Your task to perform on an android device: install app "Gmail" Image 0: 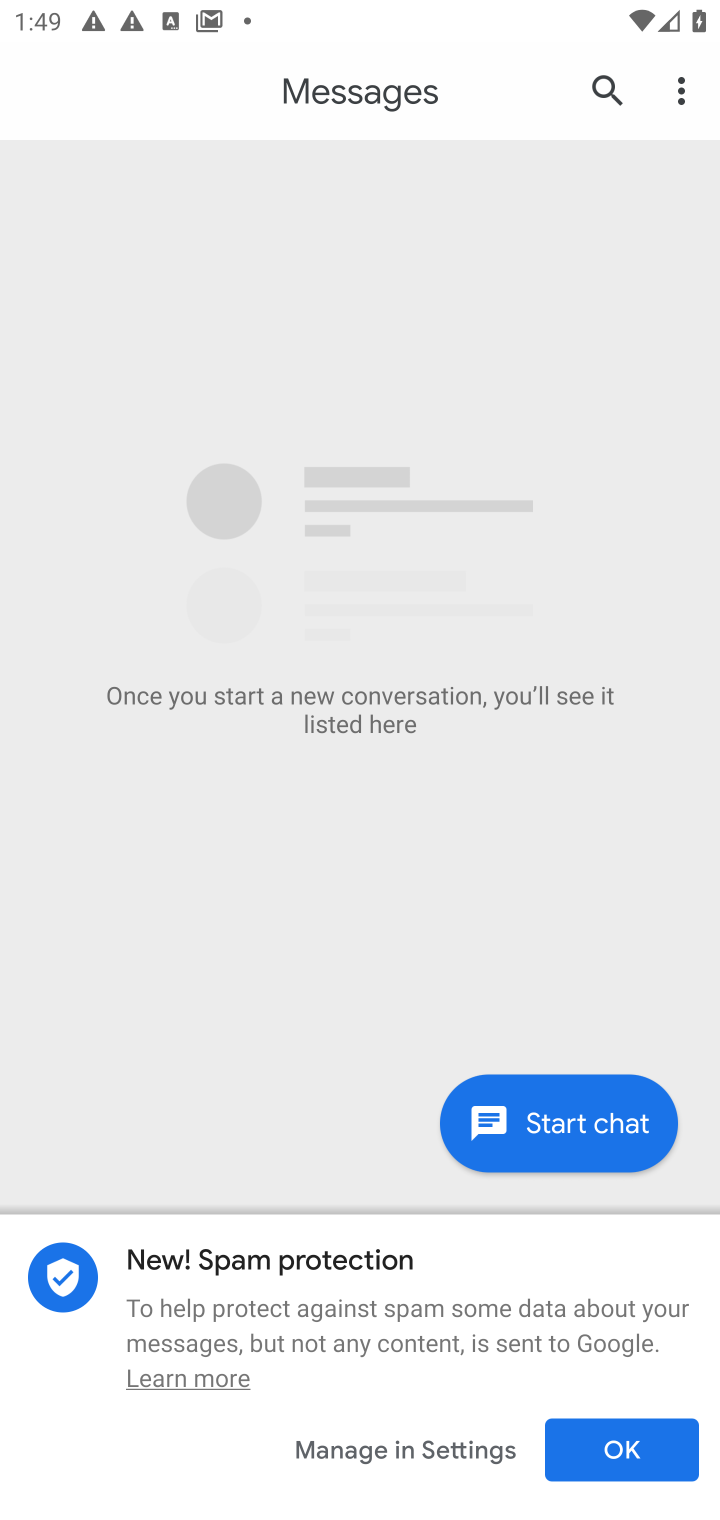
Step 0: press home button
Your task to perform on an android device: install app "Gmail" Image 1: 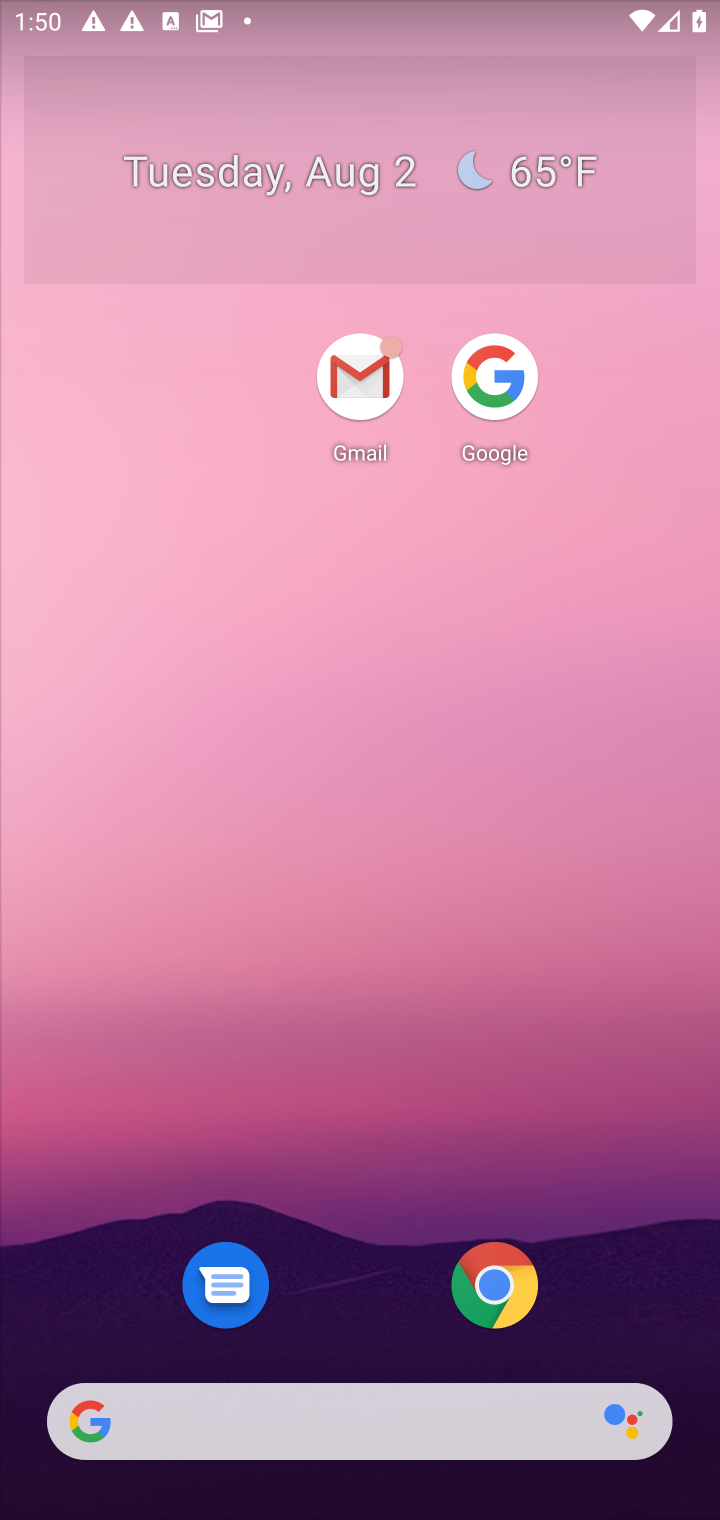
Step 1: drag from (369, 838) to (457, 177)
Your task to perform on an android device: install app "Gmail" Image 2: 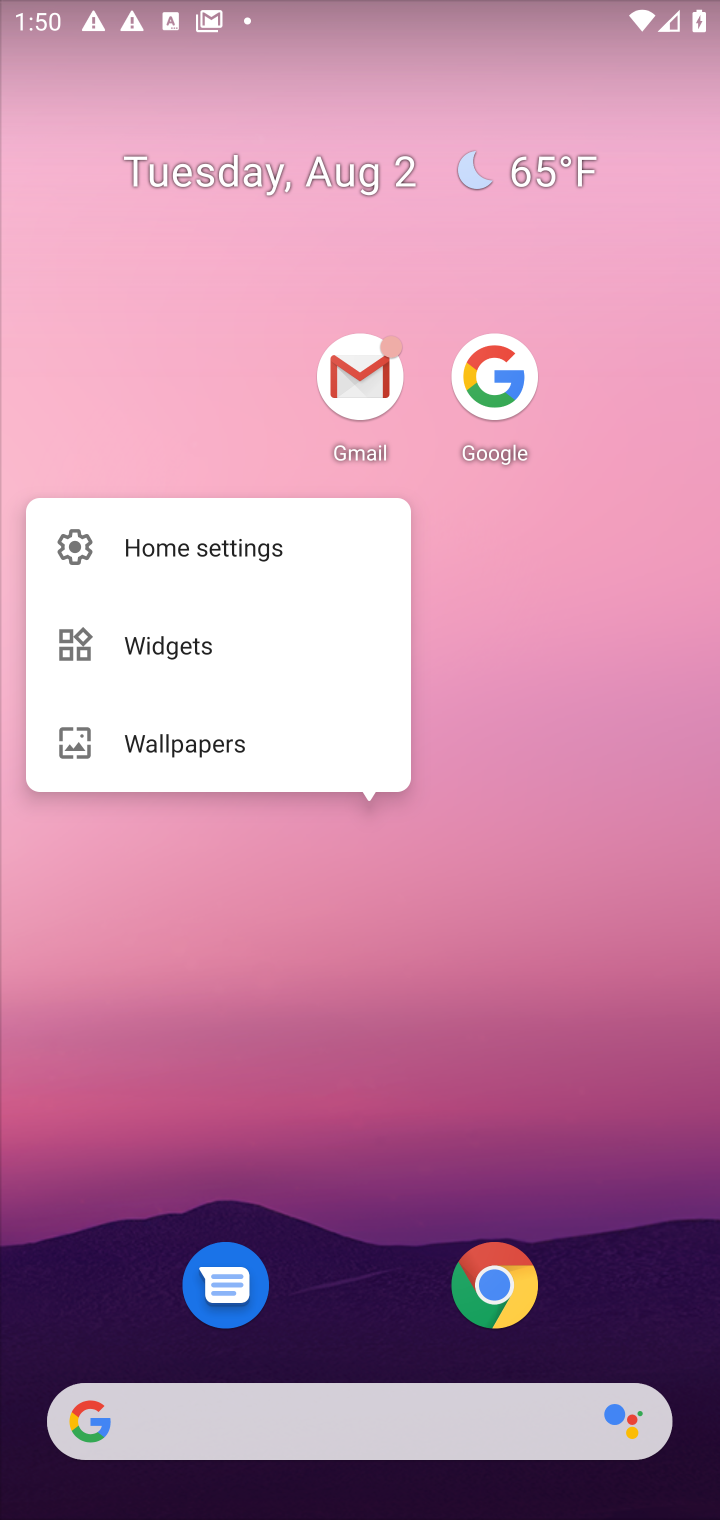
Step 2: click (638, 777)
Your task to perform on an android device: install app "Gmail" Image 3: 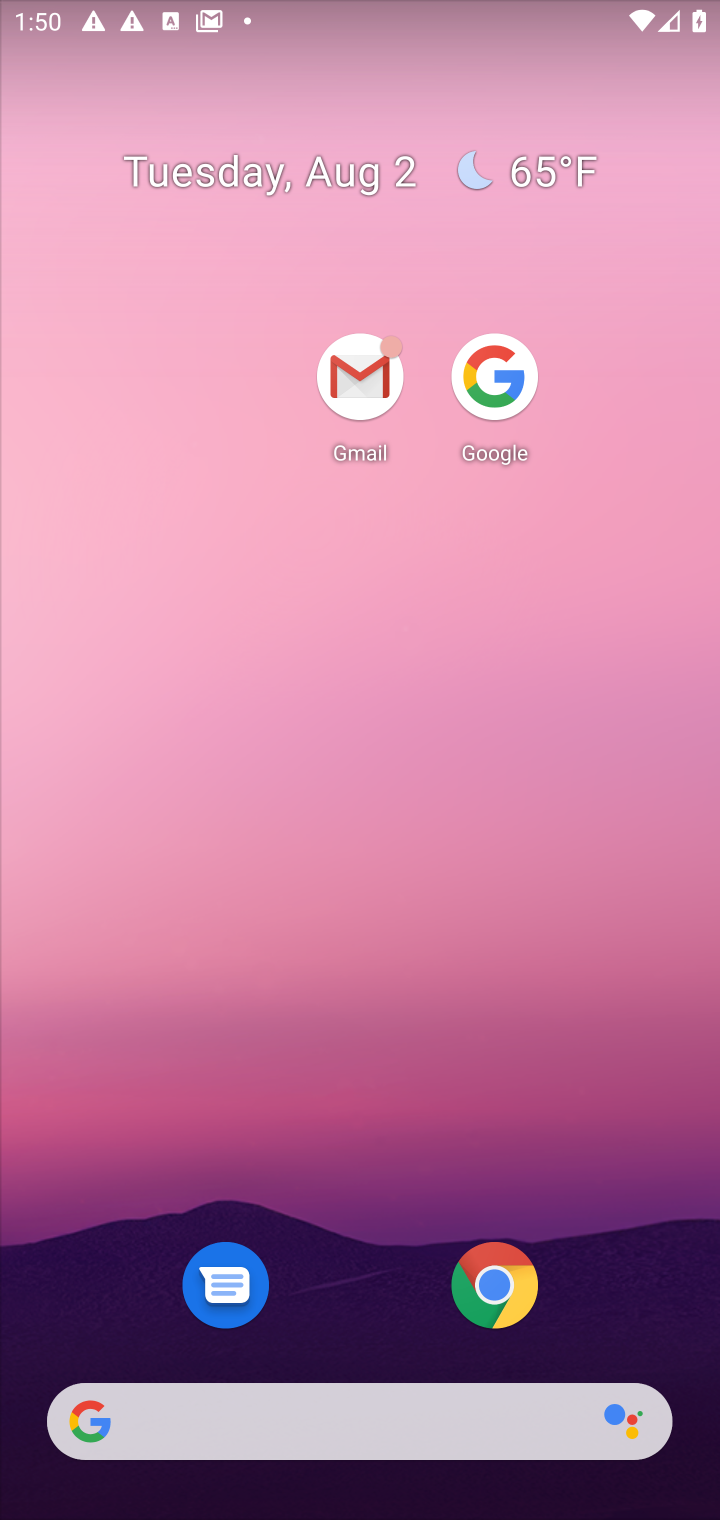
Step 3: drag from (375, 815) to (450, 194)
Your task to perform on an android device: install app "Gmail" Image 4: 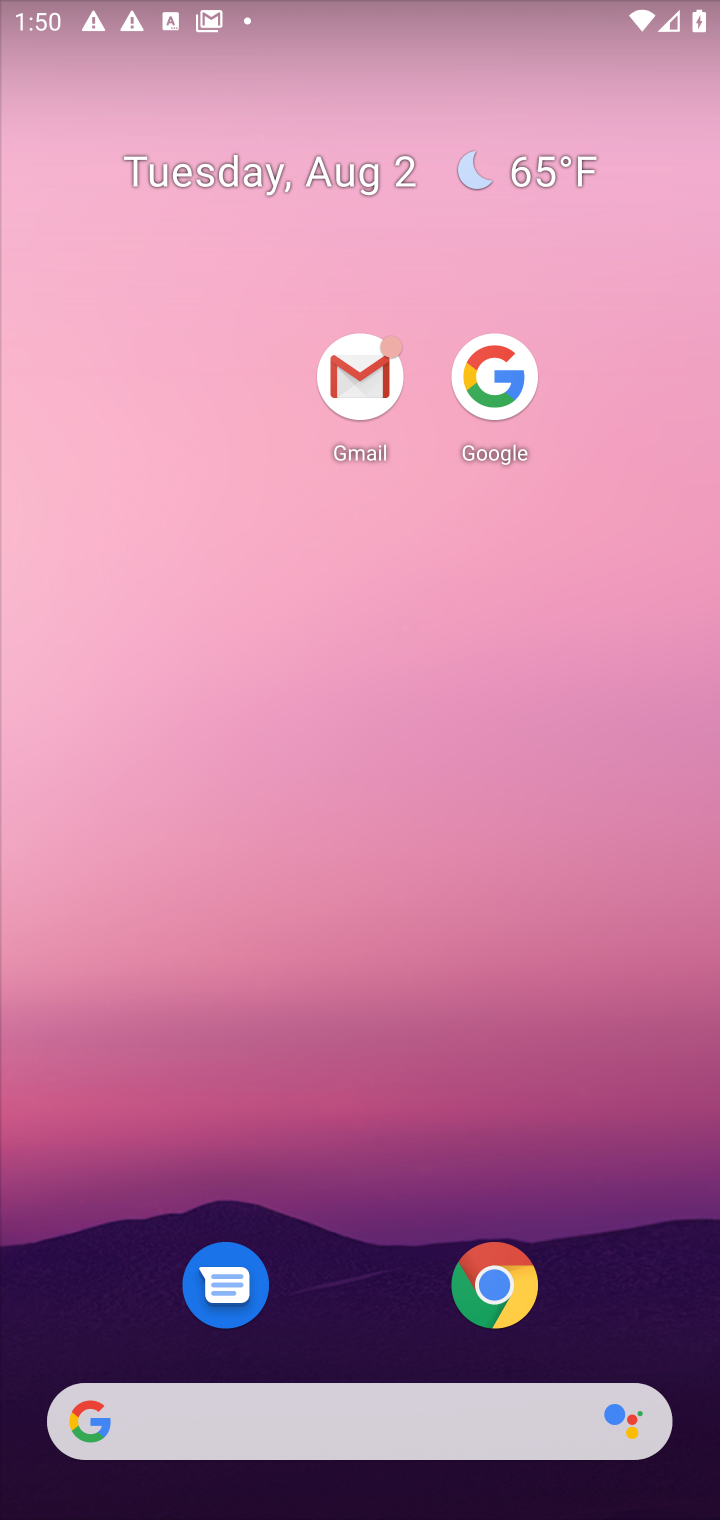
Step 4: drag from (362, 1291) to (500, 166)
Your task to perform on an android device: install app "Gmail" Image 5: 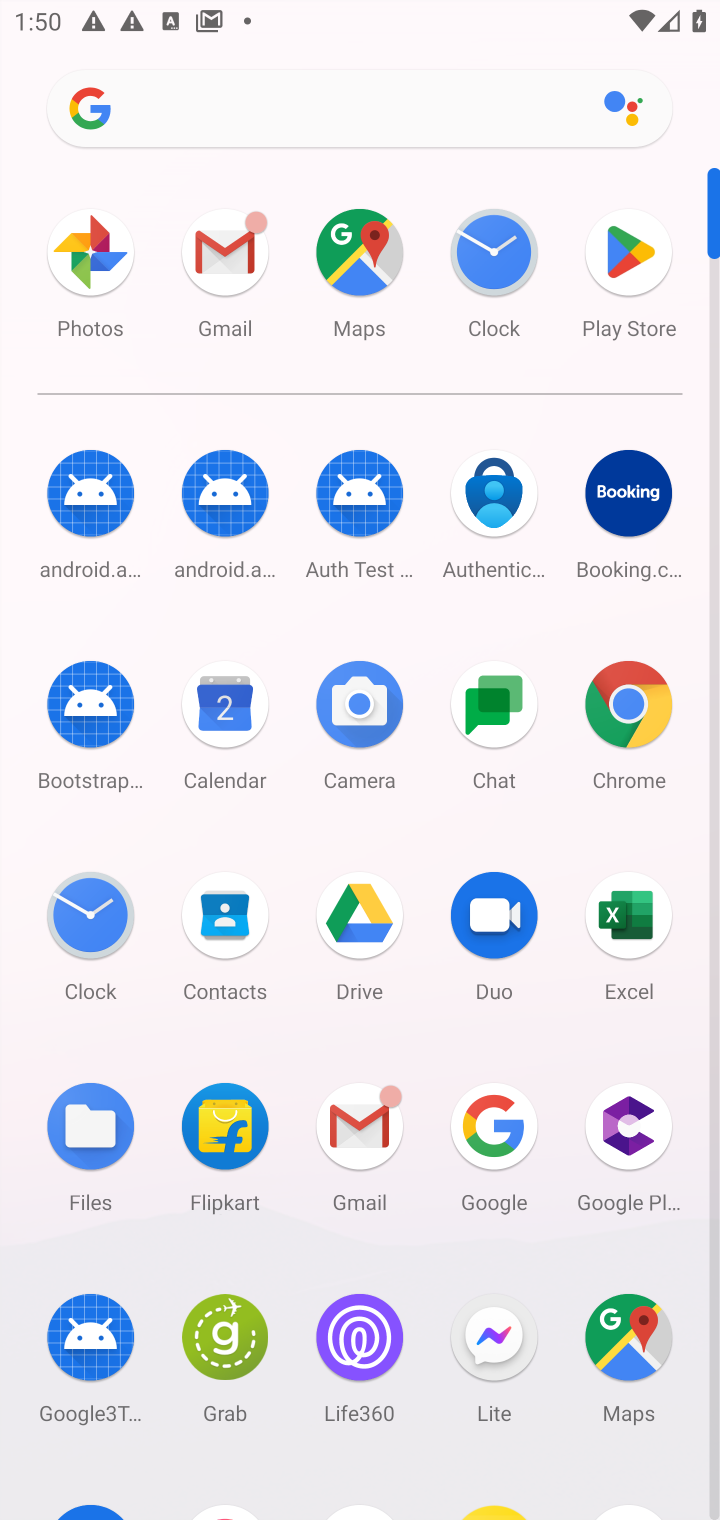
Step 5: drag from (431, 1235) to (467, 679)
Your task to perform on an android device: install app "Gmail" Image 6: 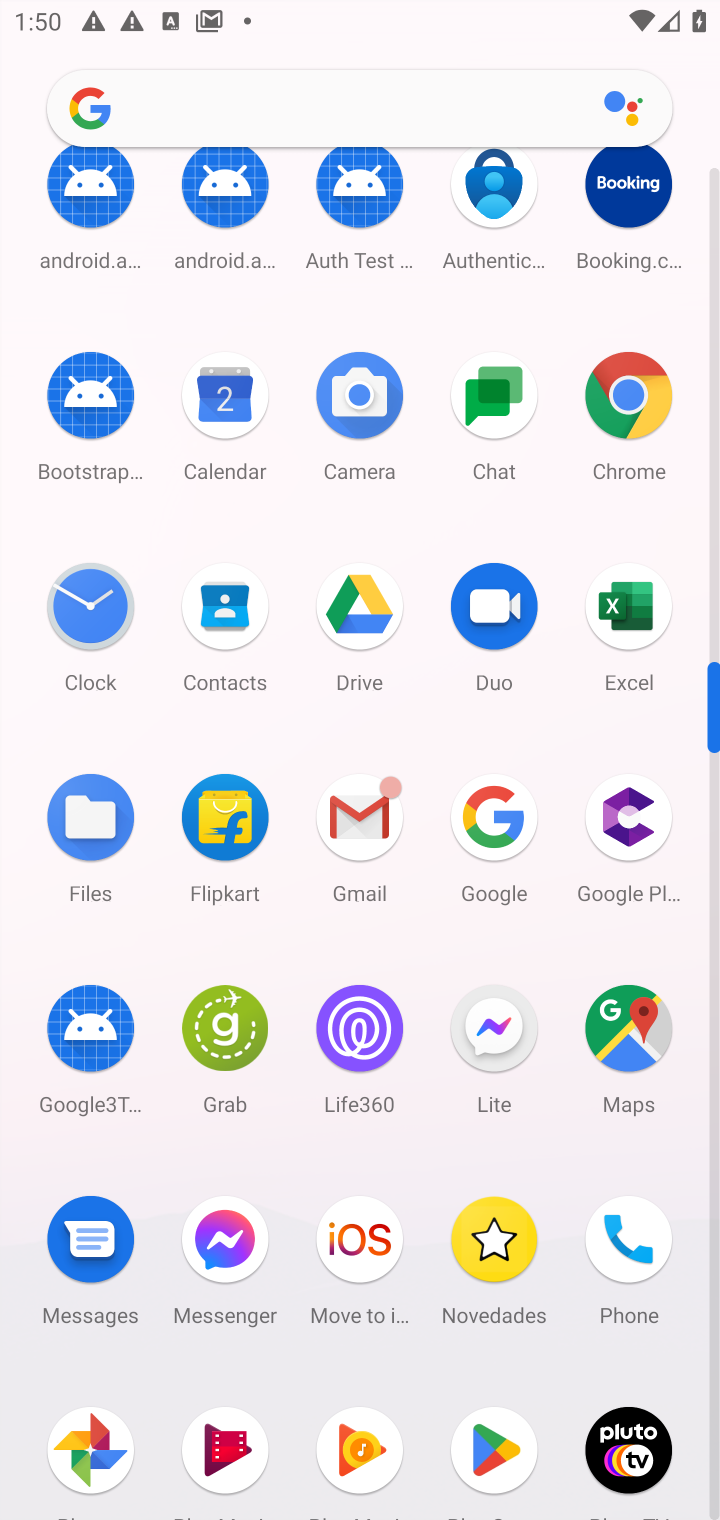
Step 6: click (505, 1471)
Your task to perform on an android device: install app "Gmail" Image 7: 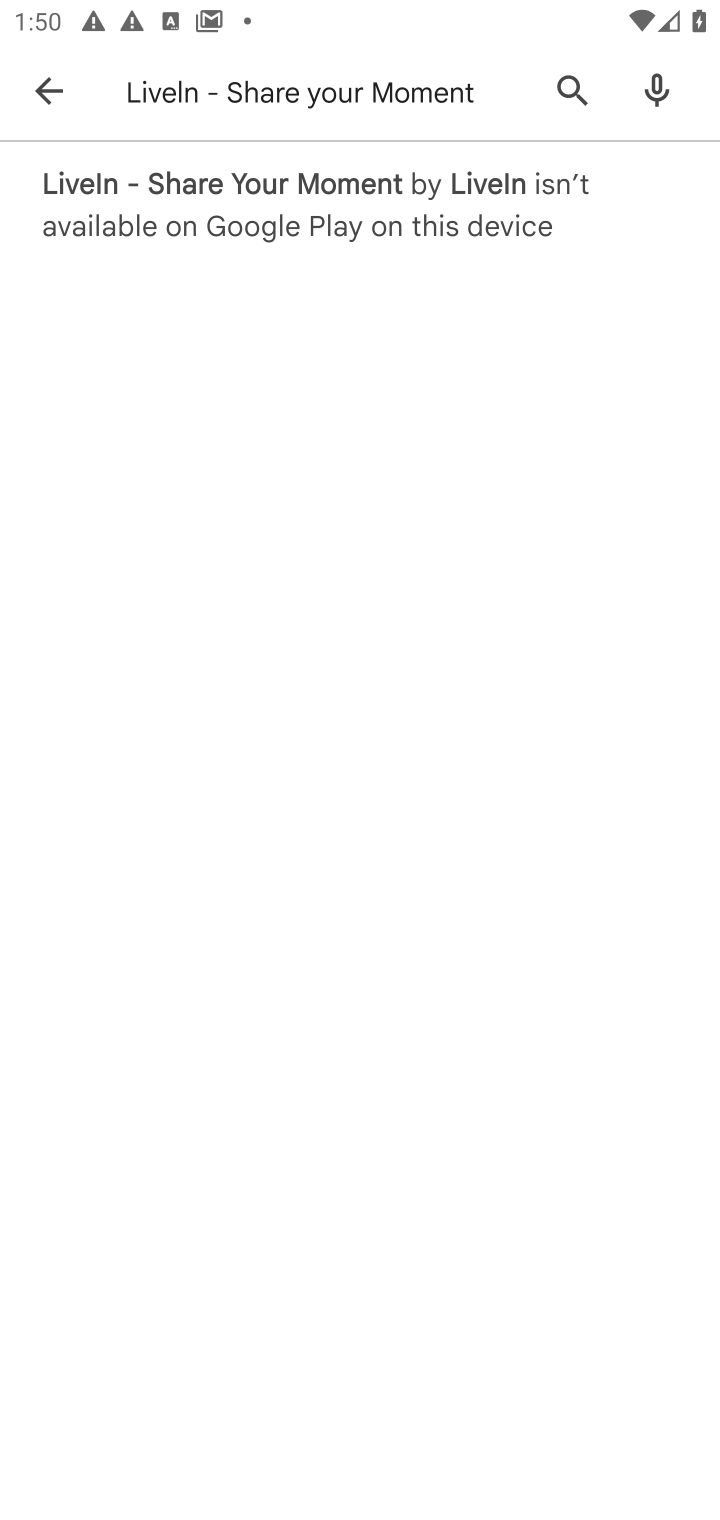
Step 7: click (364, 93)
Your task to perform on an android device: install app "Gmail" Image 8: 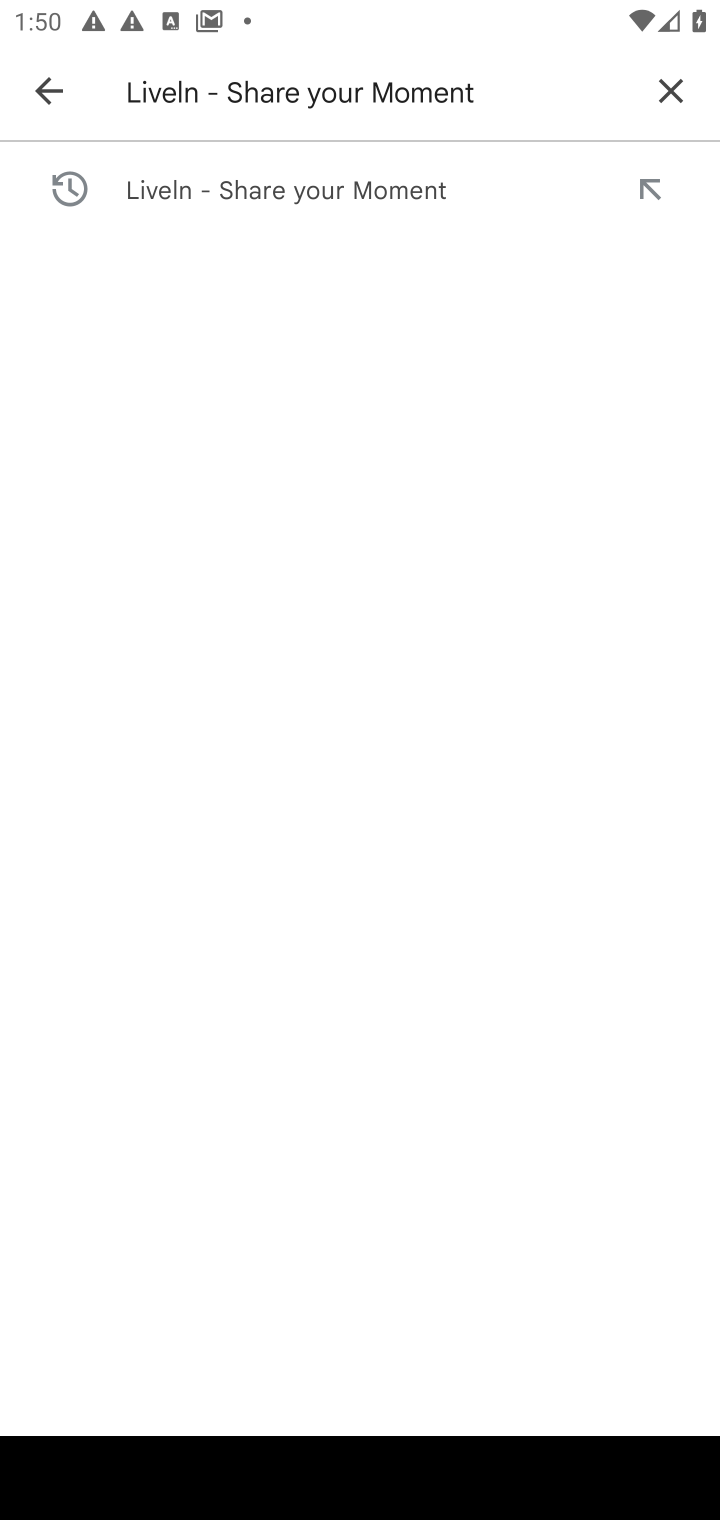
Step 8: click (671, 89)
Your task to perform on an android device: install app "Gmail" Image 9: 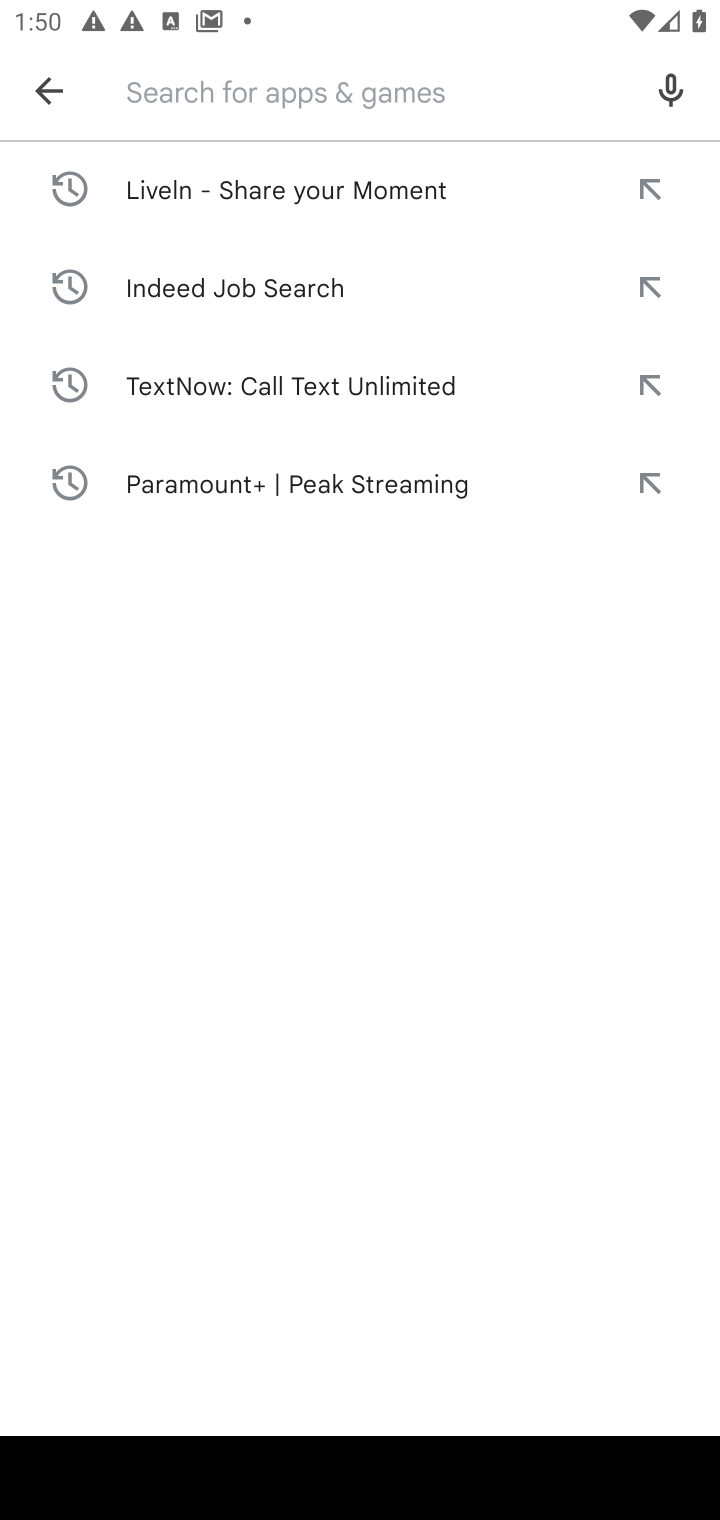
Step 9: type "Gmail"
Your task to perform on an android device: install app "Gmail" Image 10: 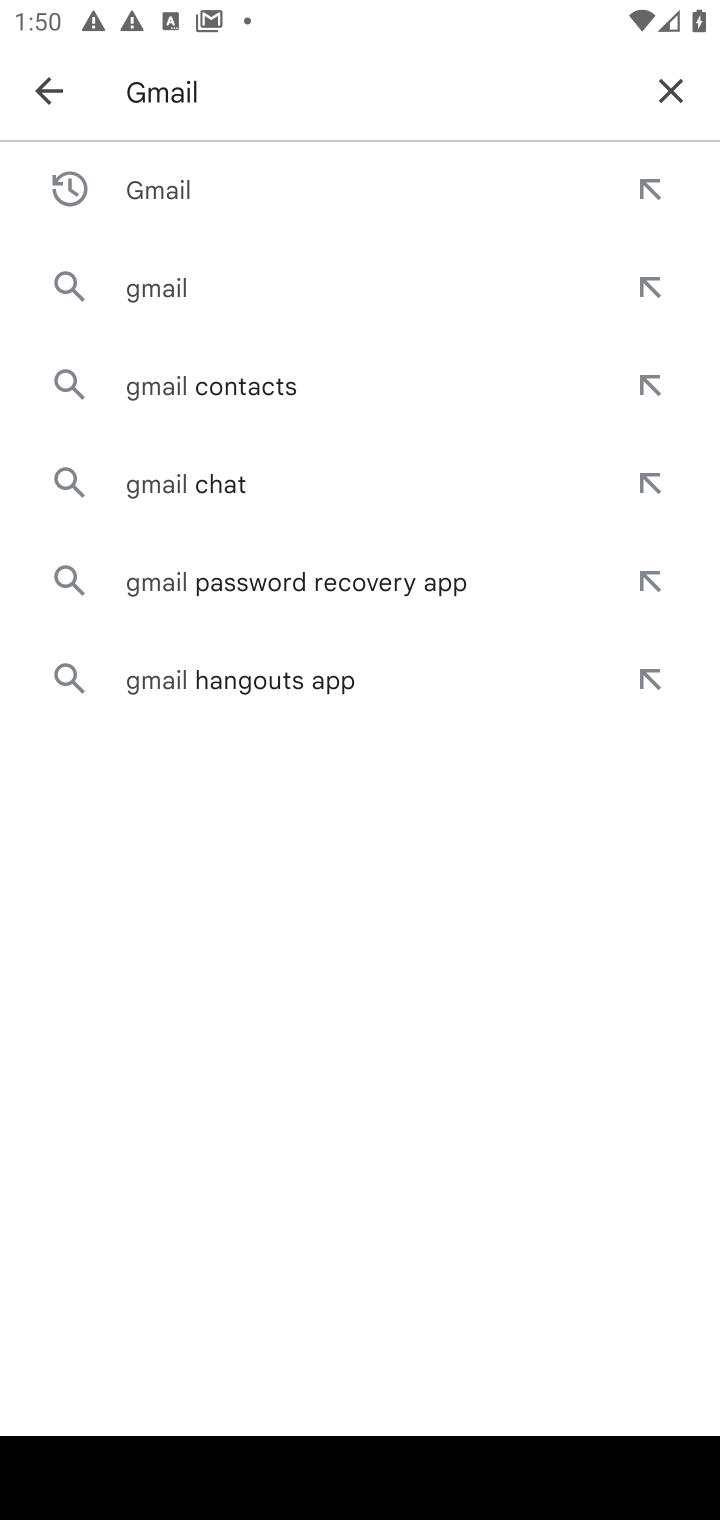
Step 10: press enter
Your task to perform on an android device: install app "Gmail" Image 11: 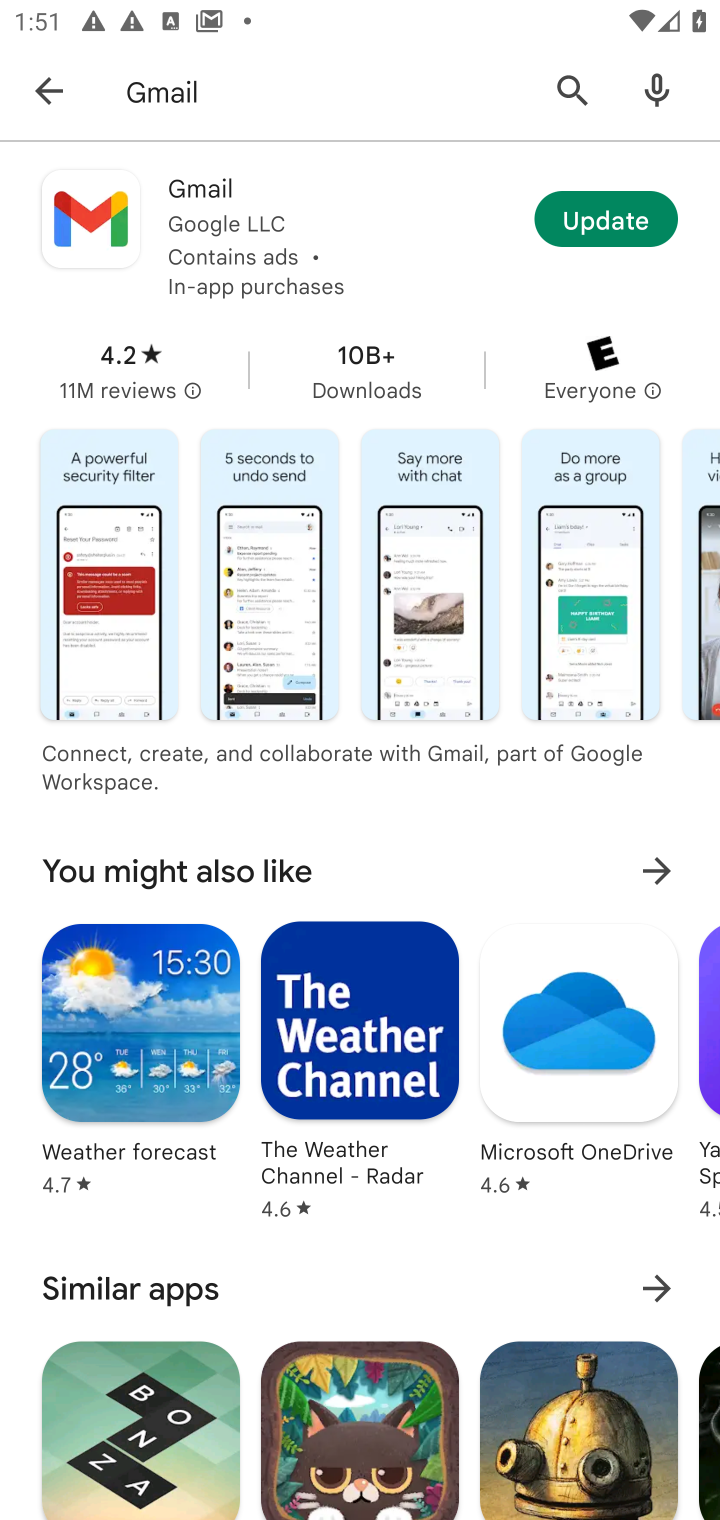
Step 11: task complete